Your task to perform on an android device: turn on sleep mode Image 0: 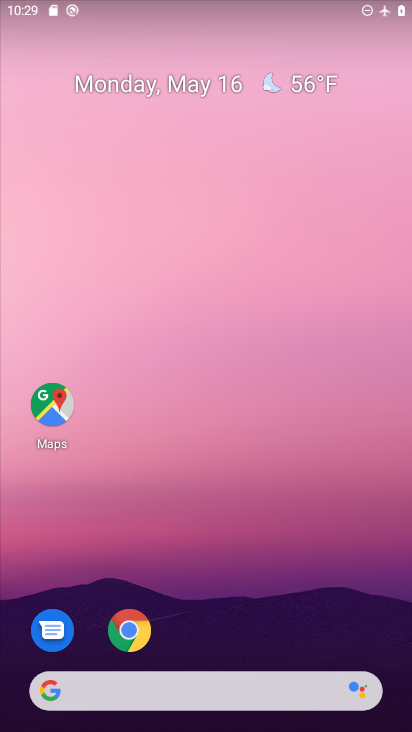
Step 0: drag from (219, 582) to (271, 54)
Your task to perform on an android device: turn on sleep mode Image 1: 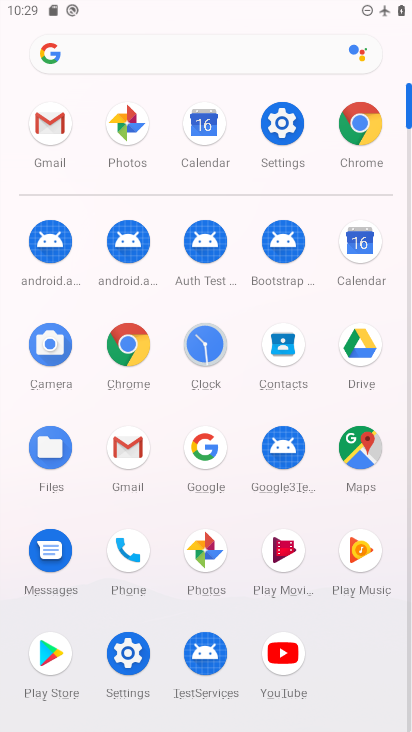
Step 1: click (283, 113)
Your task to perform on an android device: turn on sleep mode Image 2: 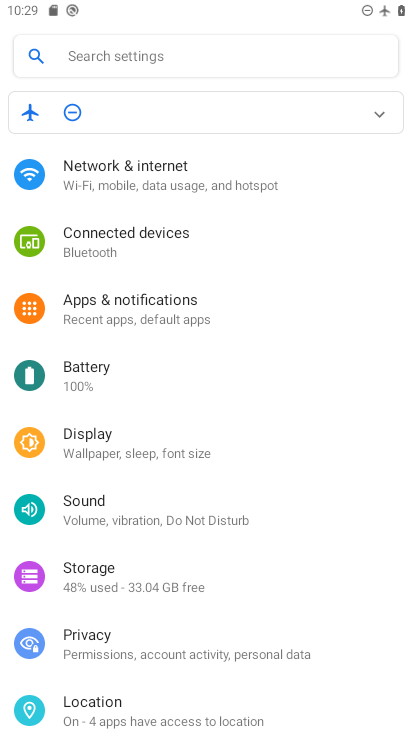
Step 2: click (136, 447)
Your task to perform on an android device: turn on sleep mode Image 3: 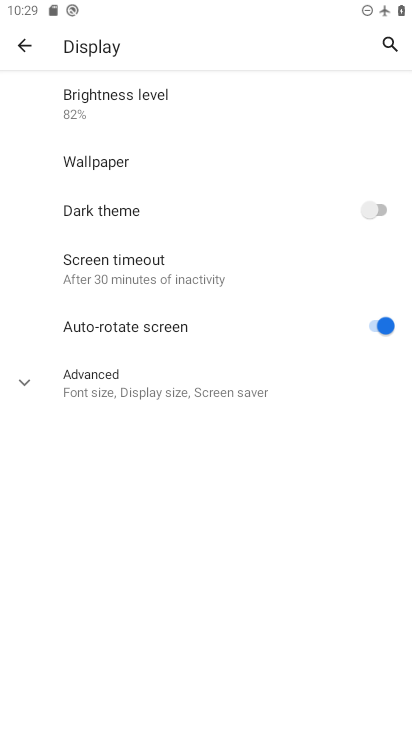
Step 3: click (25, 385)
Your task to perform on an android device: turn on sleep mode Image 4: 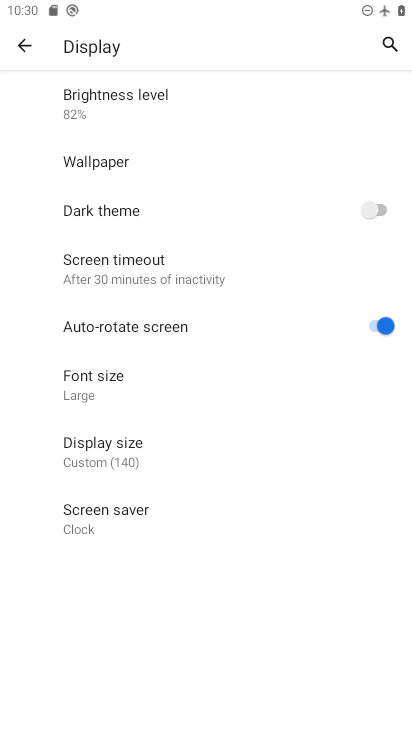
Step 4: task complete